Your task to perform on an android device: turn notification dots on Image 0: 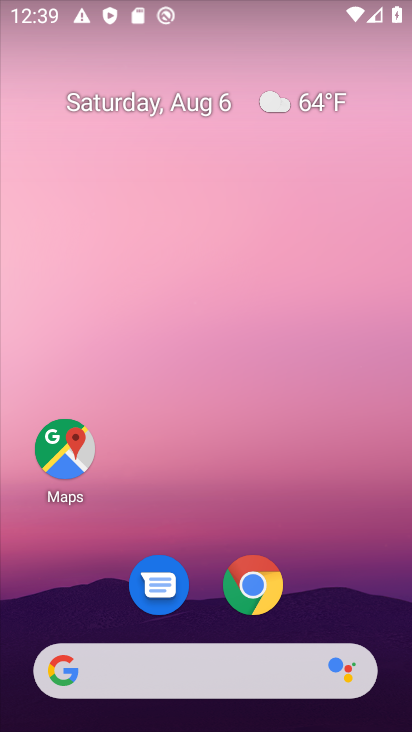
Step 0: drag from (339, 520) to (306, 0)
Your task to perform on an android device: turn notification dots on Image 1: 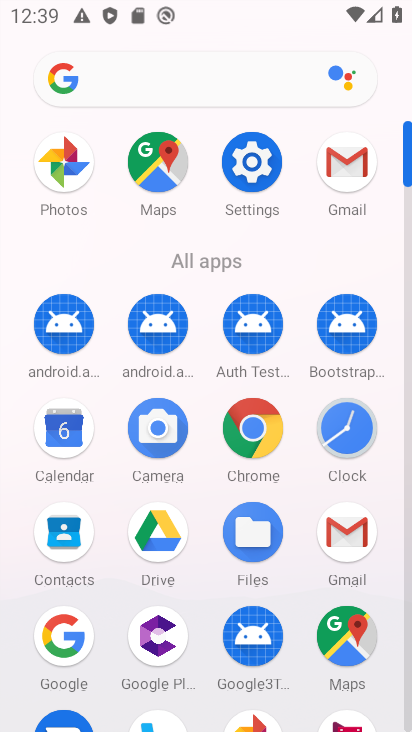
Step 1: click (243, 170)
Your task to perform on an android device: turn notification dots on Image 2: 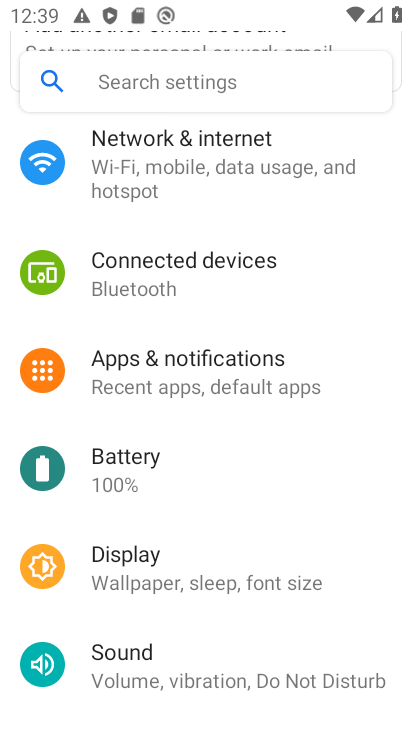
Step 2: click (212, 366)
Your task to perform on an android device: turn notification dots on Image 3: 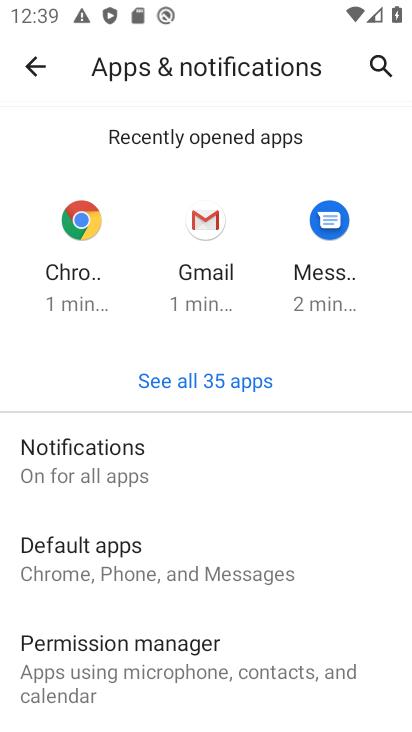
Step 3: click (137, 463)
Your task to perform on an android device: turn notification dots on Image 4: 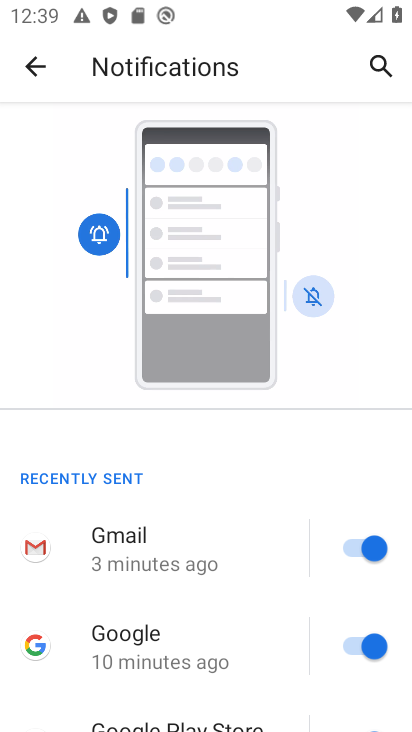
Step 4: drag from (247, 623) to (249, 97)
Your task to perform on an android device: turn notification dots on Image 5: 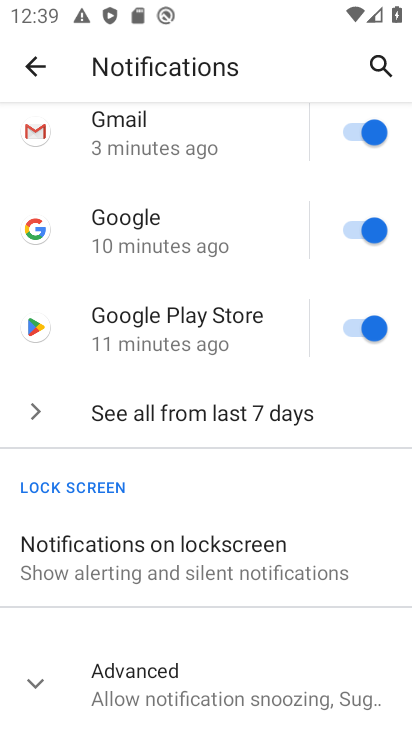
Step 5: click (37, 683)
Your task to perform on an android device: turn notification dots on Image 6: 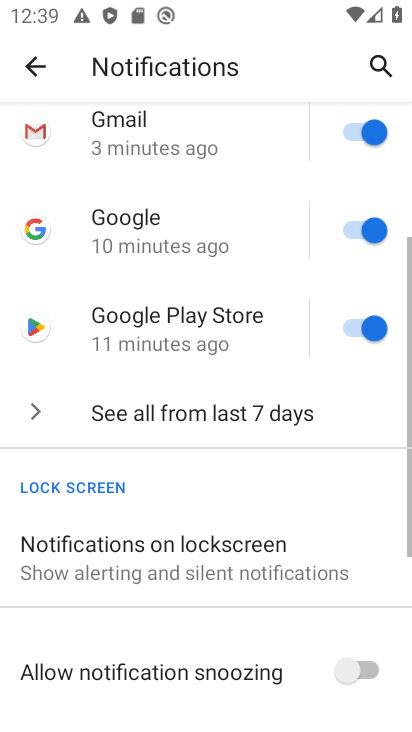
Step 6: task complete